Your task to perform on an android device: turn notification dots off Image 0: 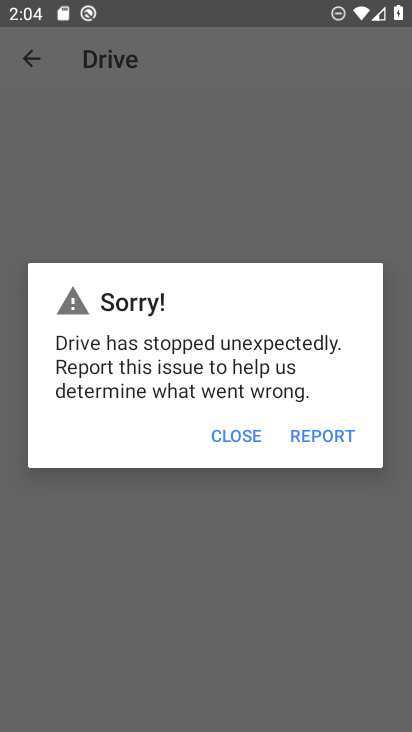
Step 0: press home button
Your task to perform on an android device: turn notification dots off Image 1: 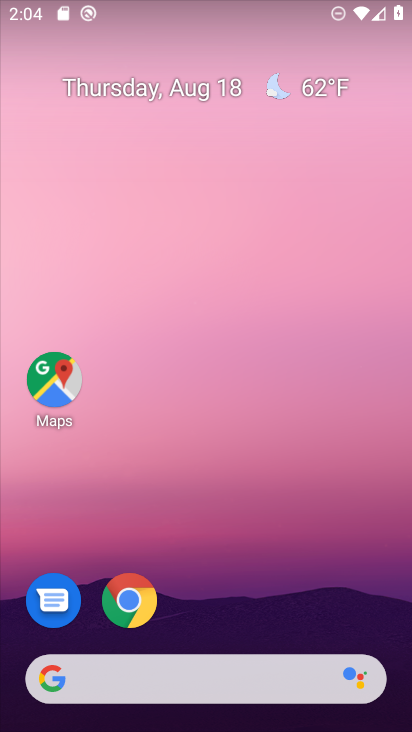
Step 1: drag from (215, 566) to (143, 113)
Your task to perform on an android device: turn notification dots off Image 2: 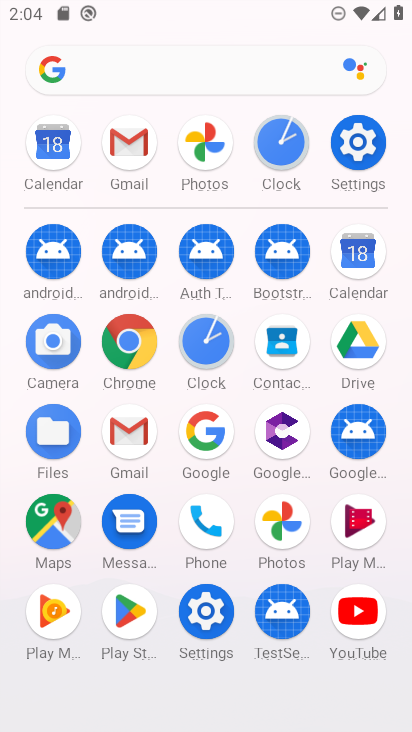
Step 2: click (354, 136)
Your task to perform on an android device: turn notification dots off Image 3: 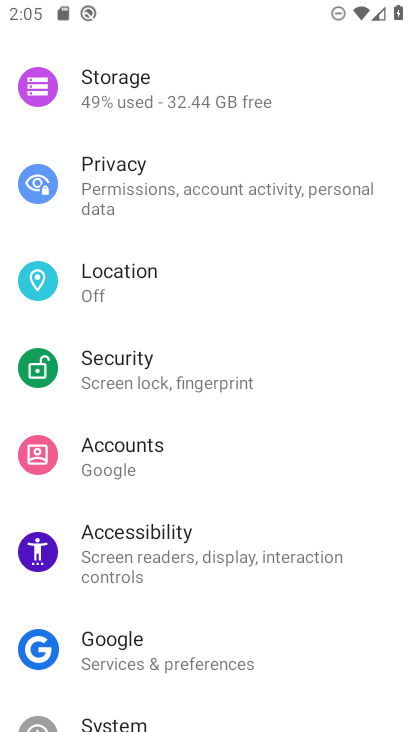
Step 3: drag from (201, 139) to (196, 465)
Your task to perform on an android device: turn notification dots off Image 4: 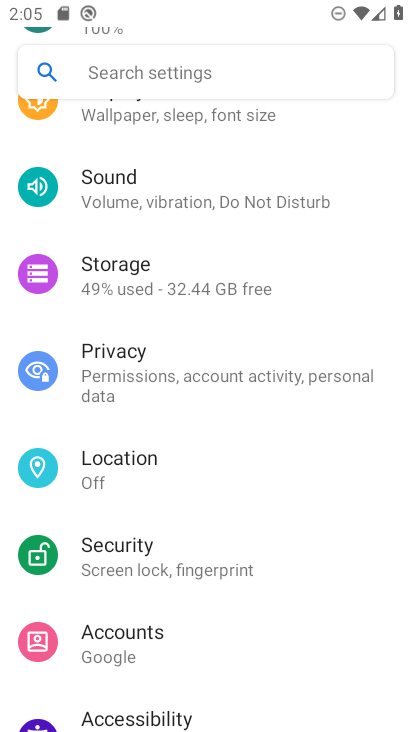
Step 4: drag from (206, 137) to (207, 425)
Your task to perform on an android device: turn notification dots off Image 5: 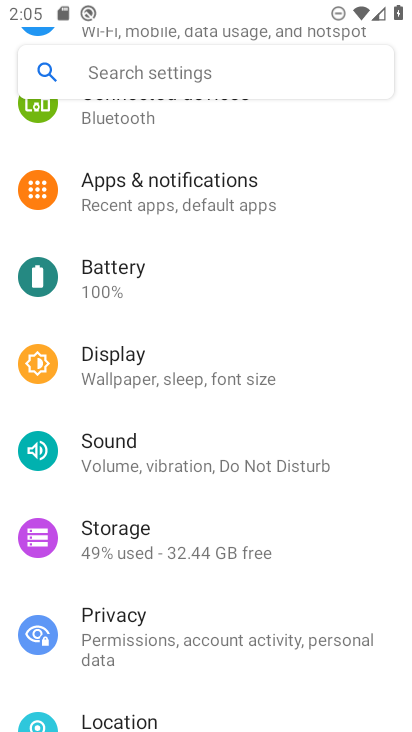
Step 5: click (151, 172)
Your task to perform on an android device: turn notification dots off Image 6: 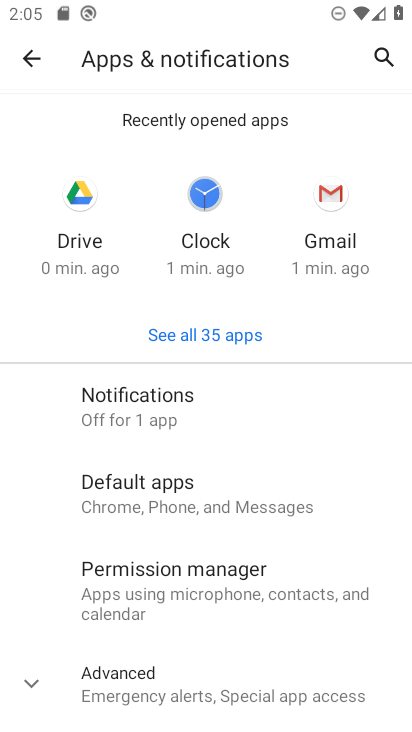
Step 6: click (119, 394)
Your task to perform on an android device: turn notification dots off Image 7: 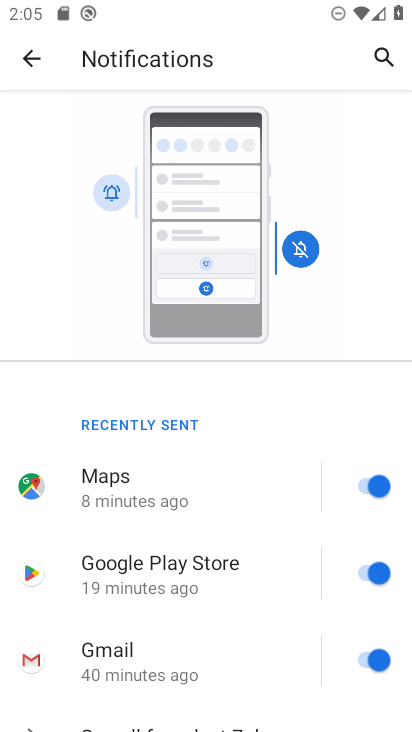
Step 7: drag from (284, 644) to (242, 300)
Your task to perform on an android device: turn notification dots off Image 8: 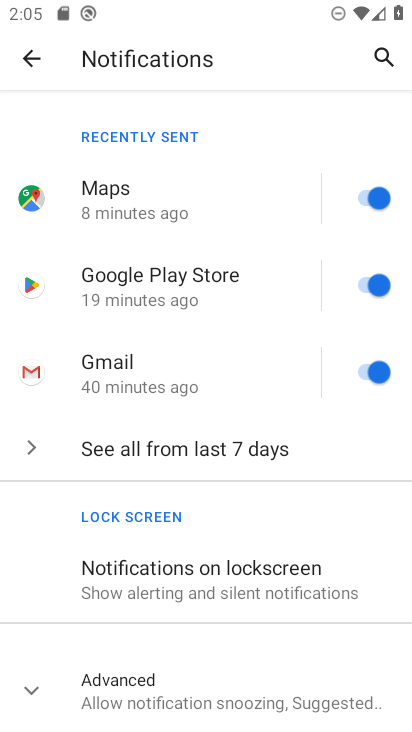
Step 8: drag from (222, 655) to (151, 350)
Your task to perform on an android device: turn notification dots off Image 9: 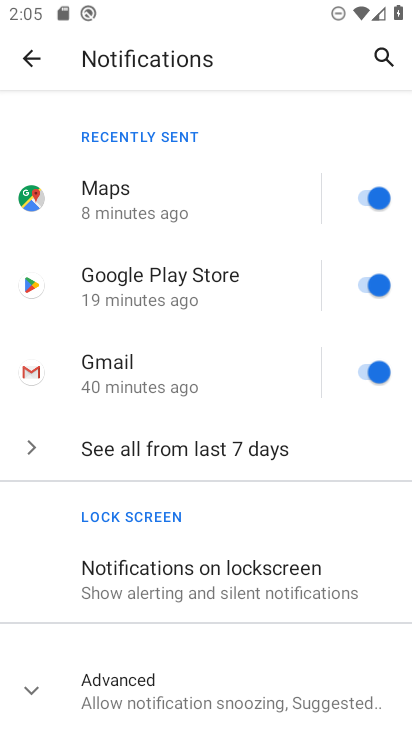
Step 9: click (26, 691)
Your task to perform on an android device: turn notification dots off Image 10: 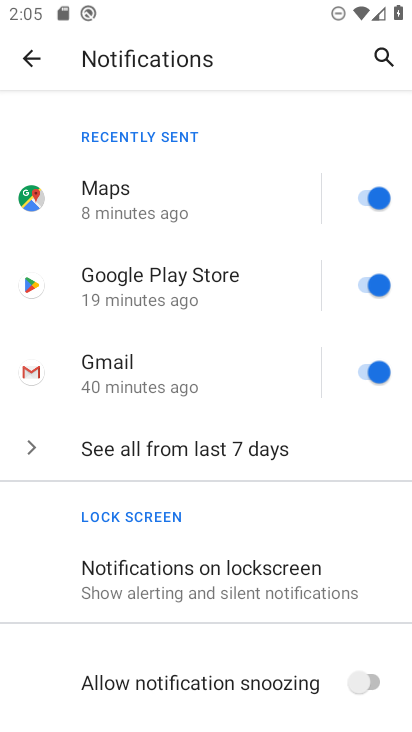
Step 10: drag from (221, 644) to (188, 330)
Your task to perform on an android device: turn notification dots off Image 11: 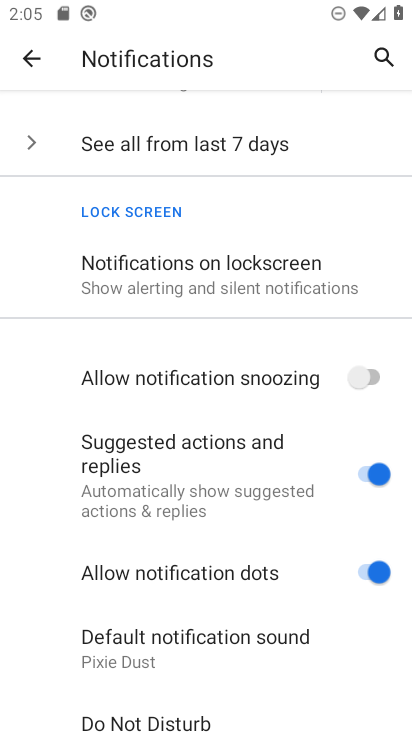
Step 11: click (384, 574)
Your task to perform on an android device: turn notification dots off Image 12: 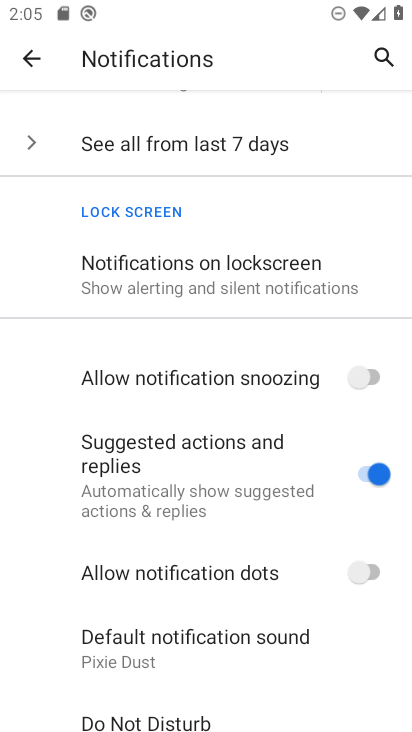
Step 12: task complete